Your task to perform on an android device: Open calendar and show me the third week of next month Image 0: 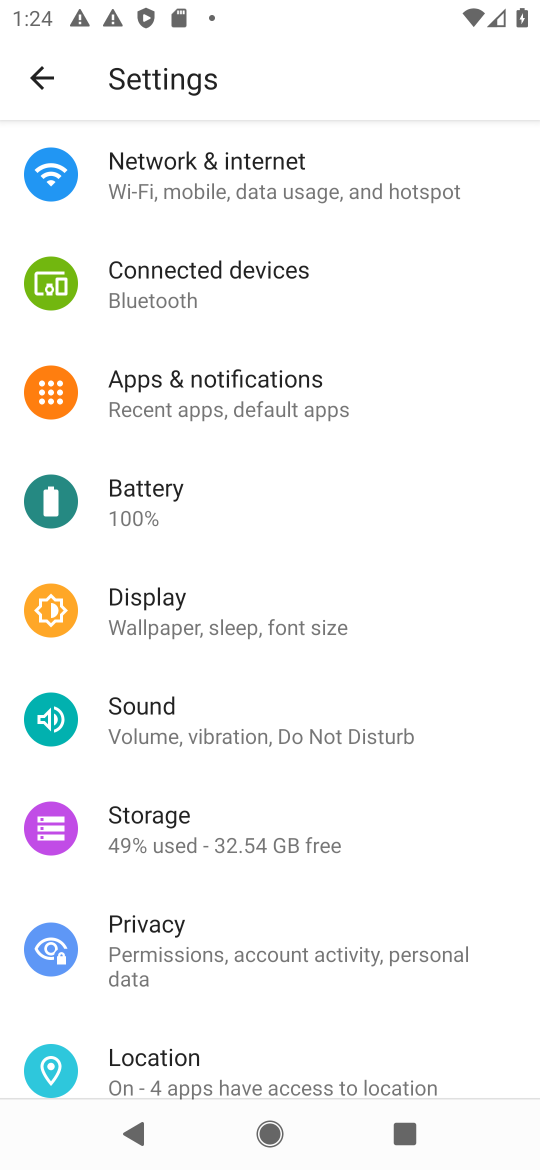
Step 0: press home button
Your task to perform on an android device: Open calendar and show me the third week of next month Image 1: 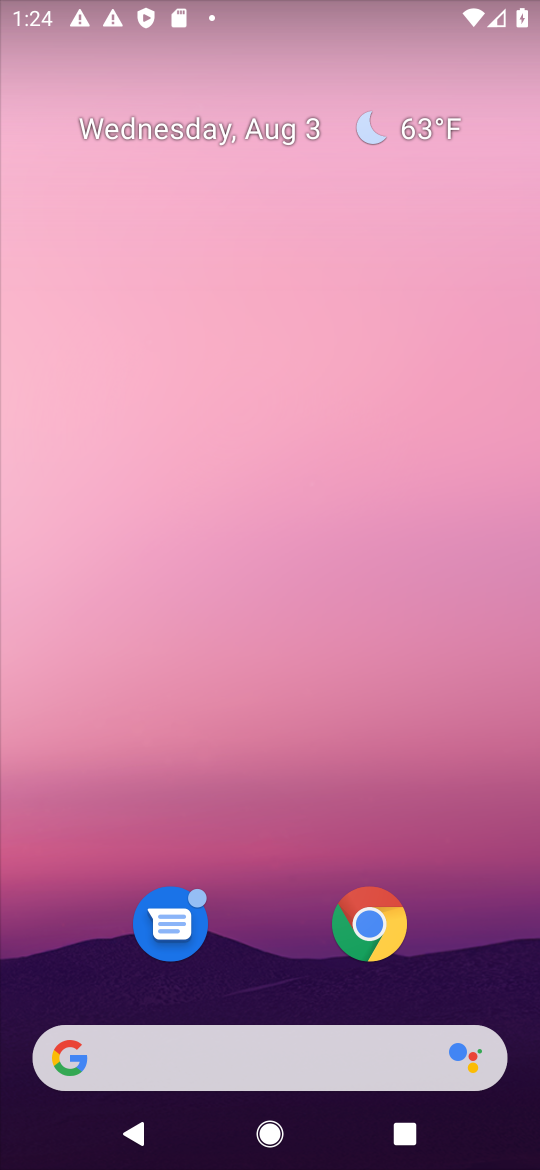
Step 1: drag from (282, 962) to (320, 92)
Your task to perform on an android device: Open calendar and show me the third week of next month Image 2: 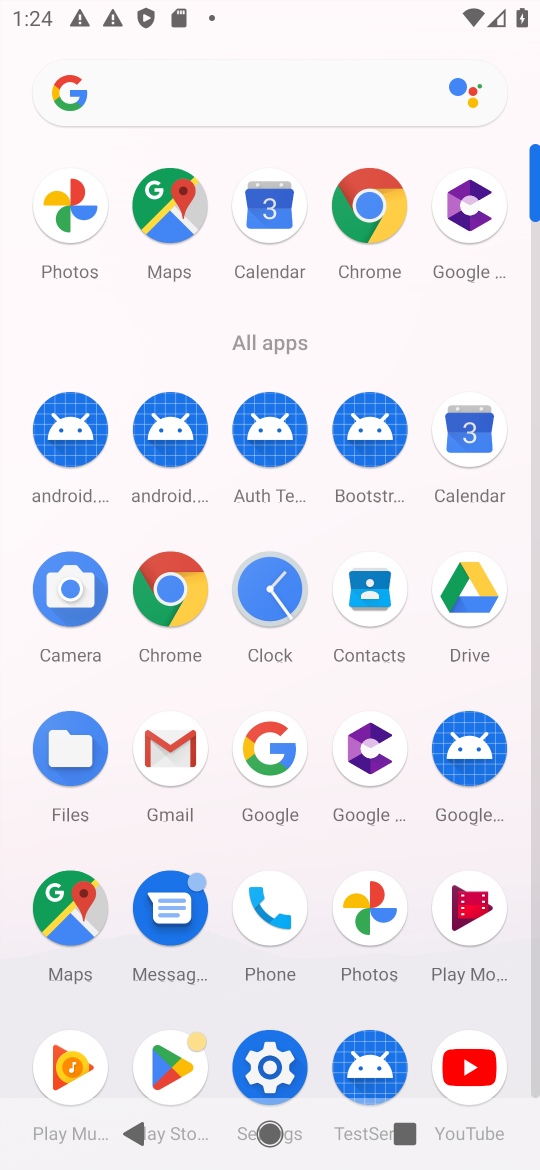
Step 2: click (465, 458)
Your task to perform on an android device: Open calendar and show me the third week of next month Image 3: 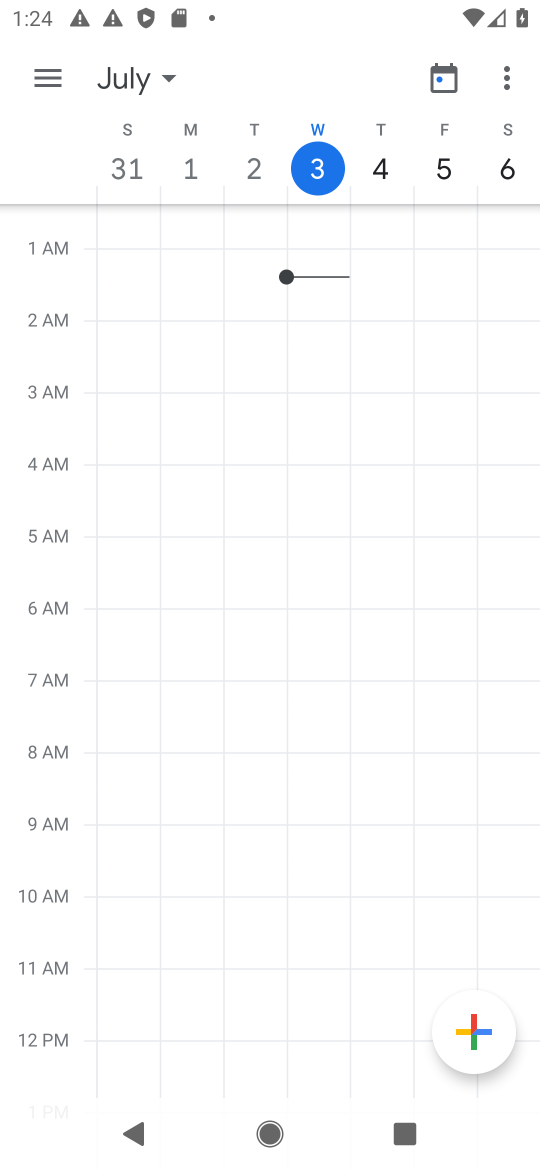
Step 3: click (49, 65)
Your task to perform on an android device: Open calendar and show me the third week of next month Image 4: 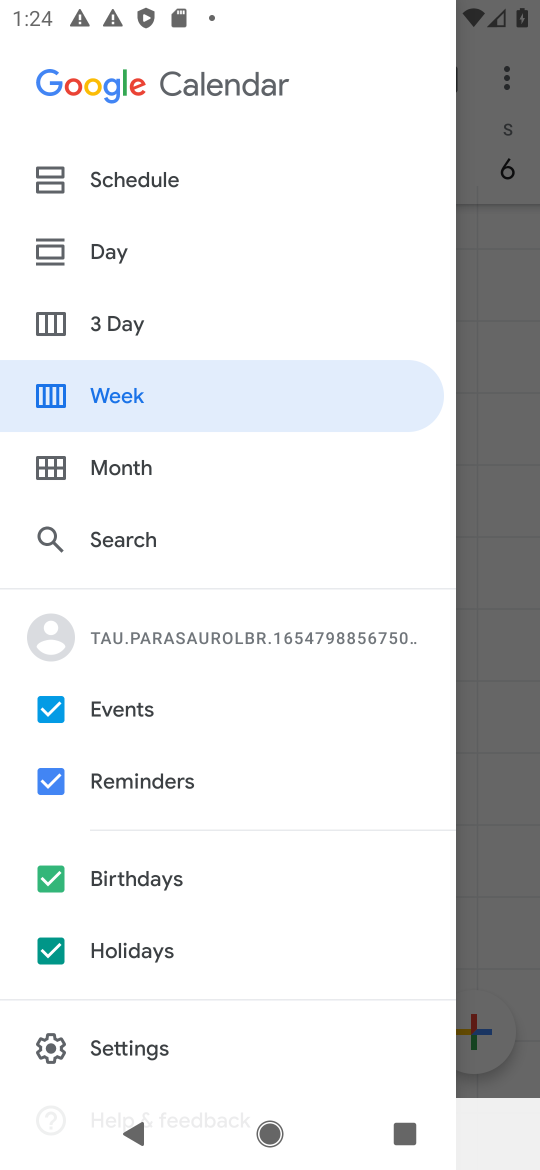
Step 4: click (109, 379)
Your task to perform on an android device: Open calendar and show me the third week of next month Image 5: 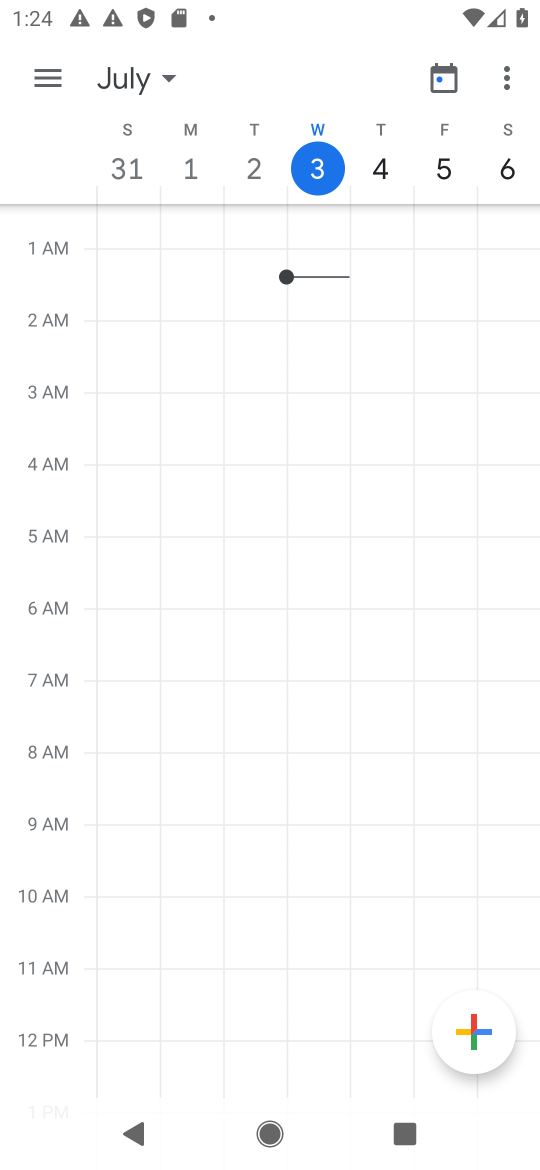
Step 5: click (44, 72)
Your task to perform on an android device: Open calendar and show me the third week of next month Image 6: 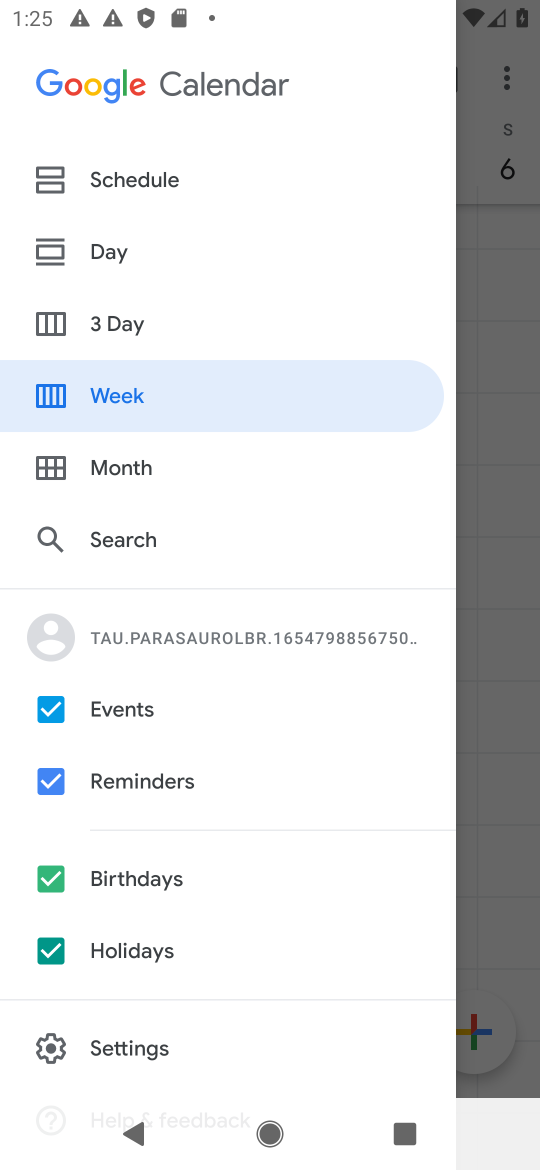
Step 6: click (103, 398)
Your task to perform on an android device: Open calendar and show me the third week of next month Image 7: 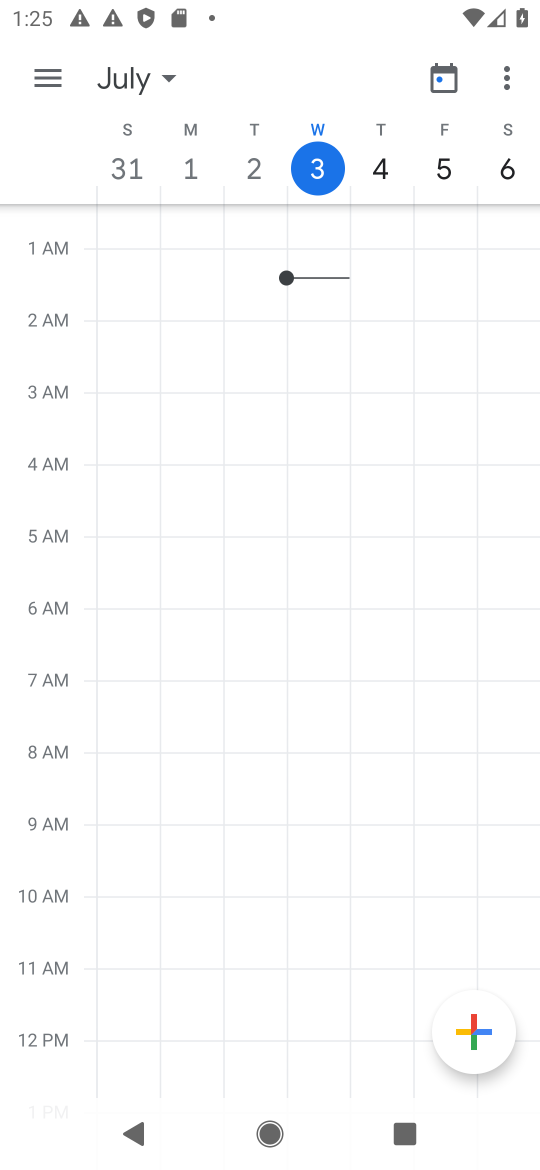
Step 7: click (162, 69)
Your task to perform on an android device: Open calendar and show me the third week of next month Image 8: 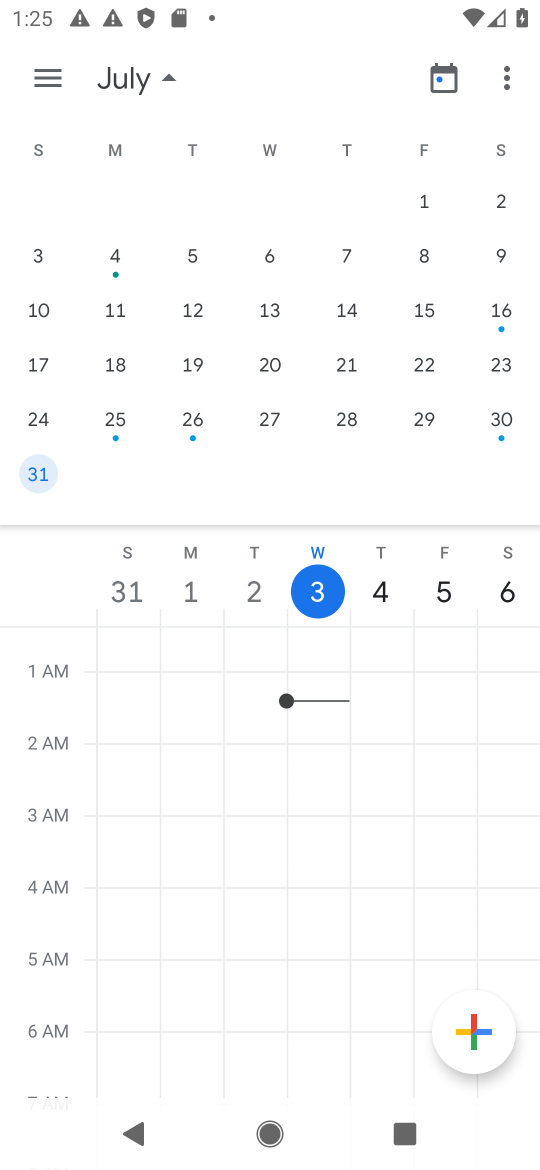
Step 8: drag from (453, 353) to (0, 357)
Your task to perform on an android device: Open calendar and show me the third week of next month Image 9: 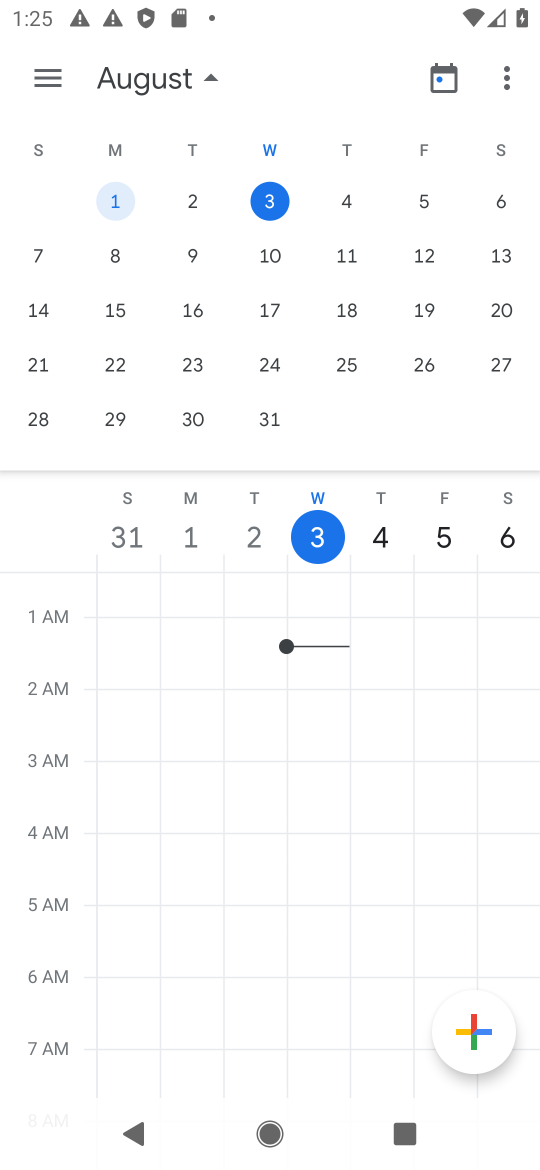
Step 9: drag from (496, 280) to (0, 304)
Your task to perform on an android device: Open calendar and show me the third week of next month Image 10: 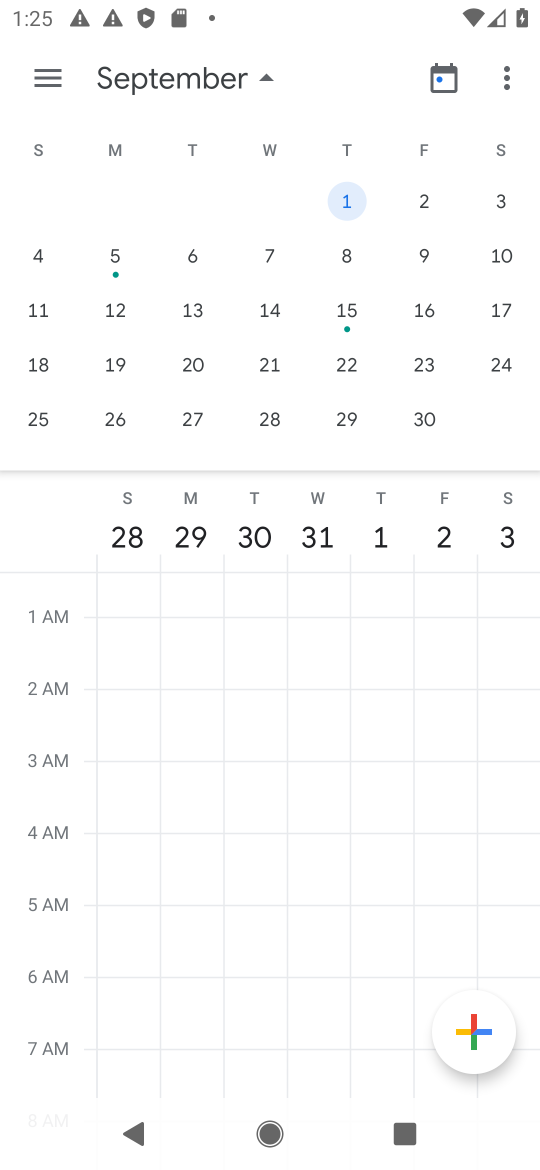
Step 10: click (40, 355)
Your task to perform on an android device: Open calendar and show me the third week of next month Image 11: 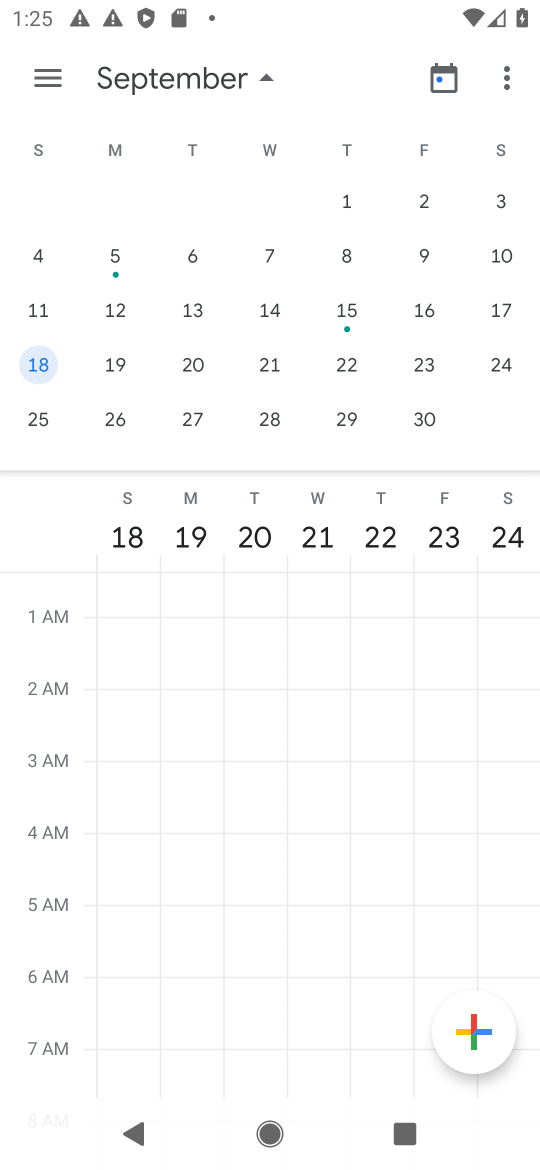
Step 11: task complete